Your task to perform on an android device: empty trash in google photos Image 0: 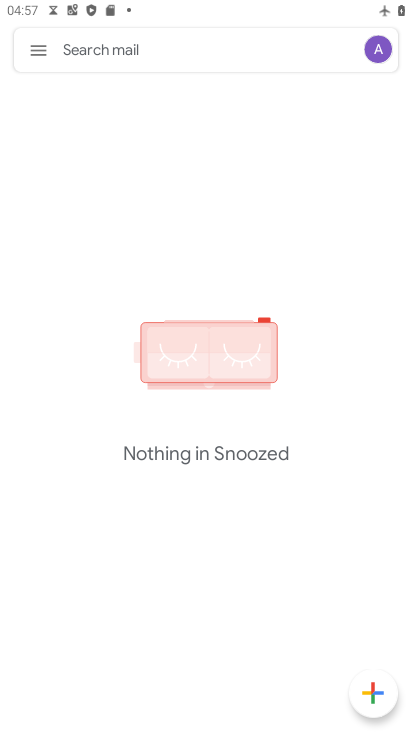
Step 0: press home button
Your task to perform on an android device: empty trash in google photos Image 1: 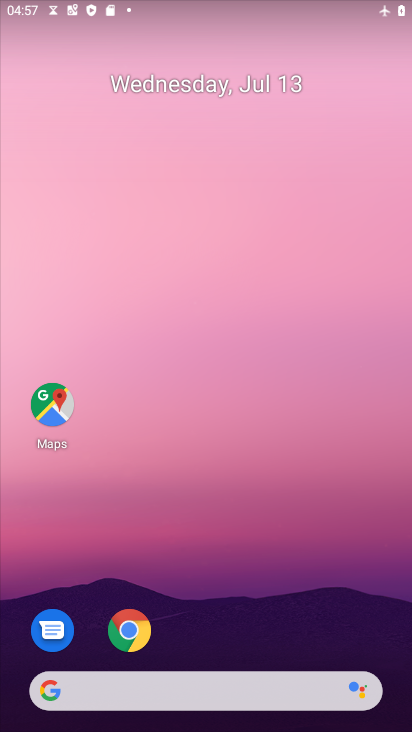
Step 1: drag from (150, 694) to (223, 89)
Your task to perform on an android device: empty trash in google photos Image 2: 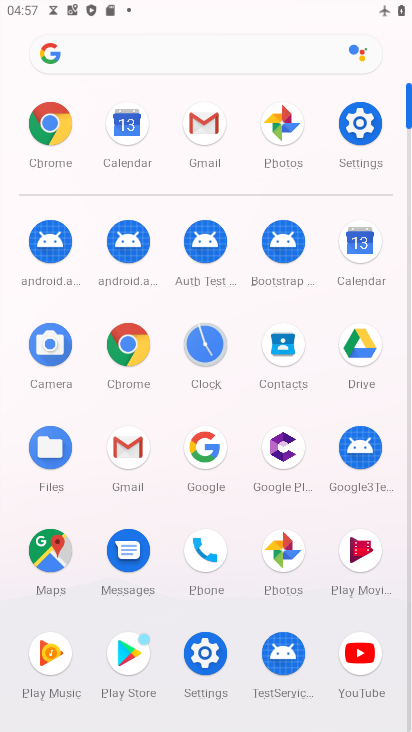
Step 2: click (269, 549)
Your task to perform on an android device: empty trash in google photos Image 3: 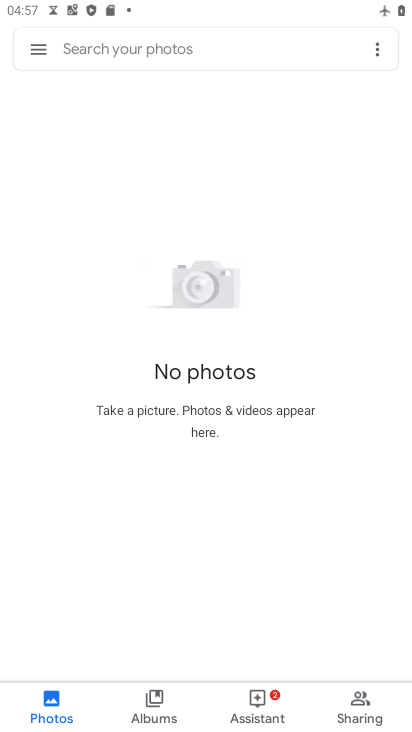
Step 3: click (33, 46)
Your task to perform on an android device: empty trash in google photos Image 4: 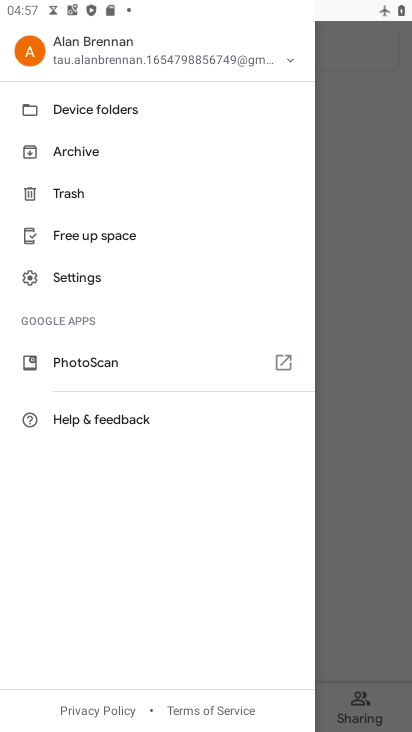
Step 4: click (78, 194)
Your task to perform on an android device: empty trash in google photos Image 5: 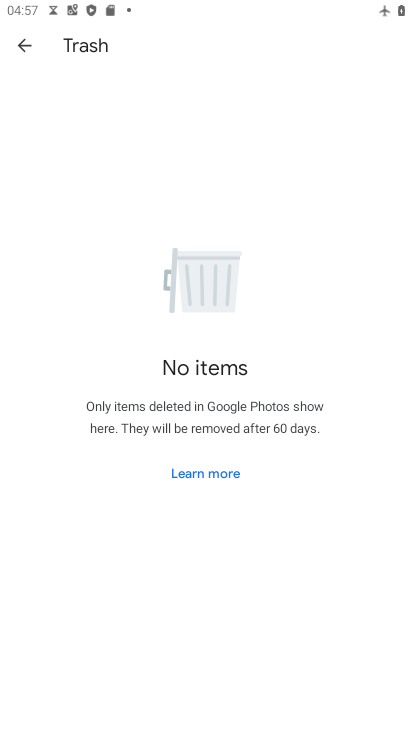
Step 5: task complete